Your task to perform on an android device: Toggle the flashlight Image 0: 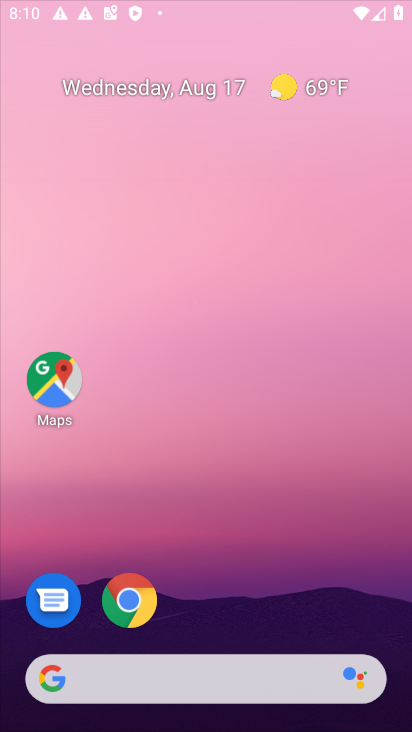
Step 0: press home button
Your task to perform on an android device: Toggle the flashlight Image 1: 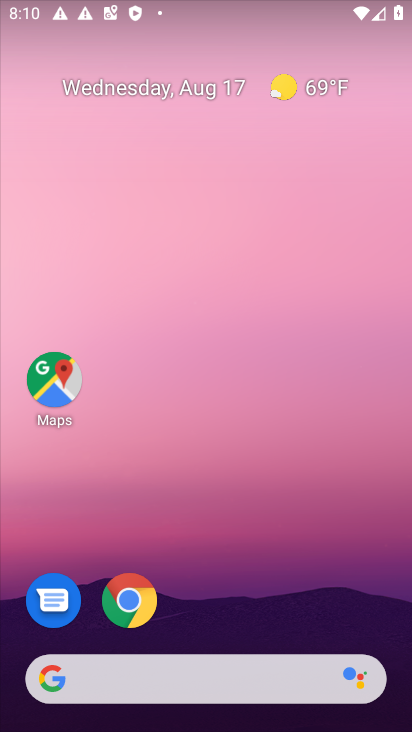
Step 1: task complete